Your task to perform on an android device: open chrome and create a bookmark for the current page Image 0: 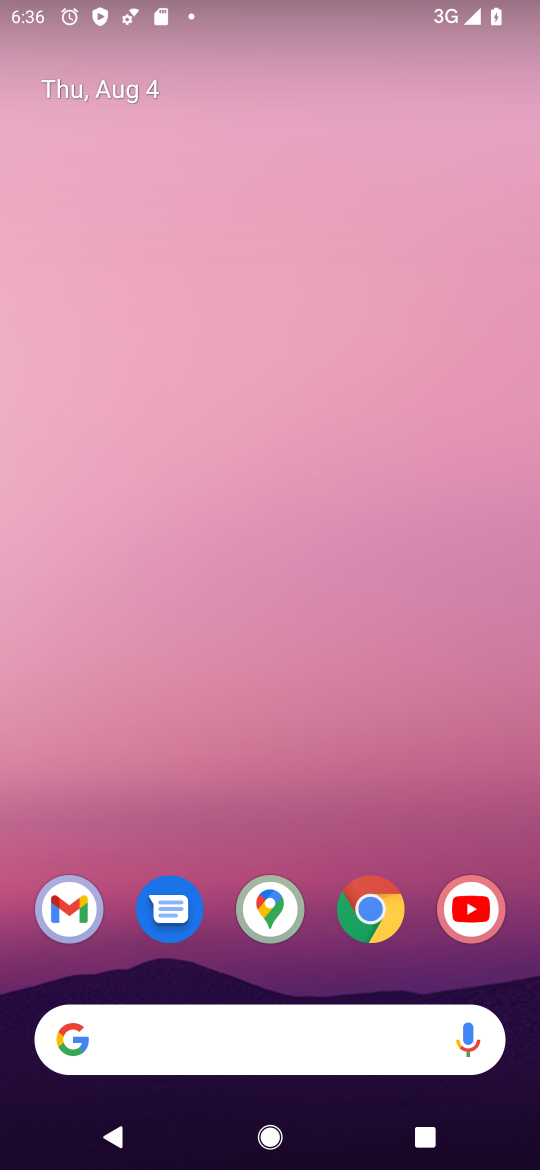
Step 0: drag from (252, 1000) to (231, 106)
Your task to perform on an android device: open chrome and create a bookmark for the current page Image 1: 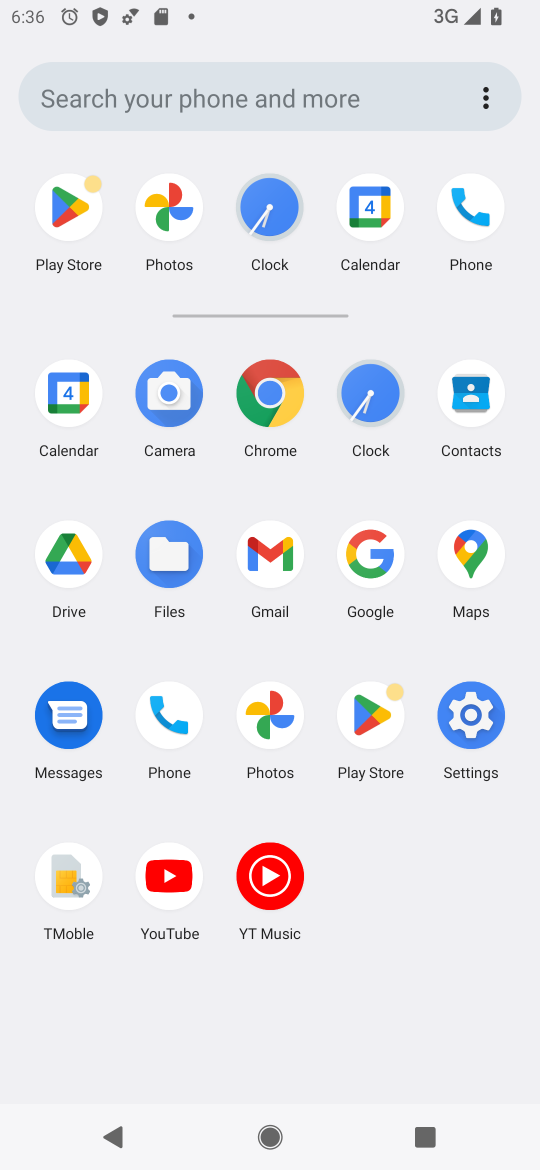
Step 1: click (278, 399)
Your task to perform on an android device: open chrome and create a bookmark for the current page Image 2: 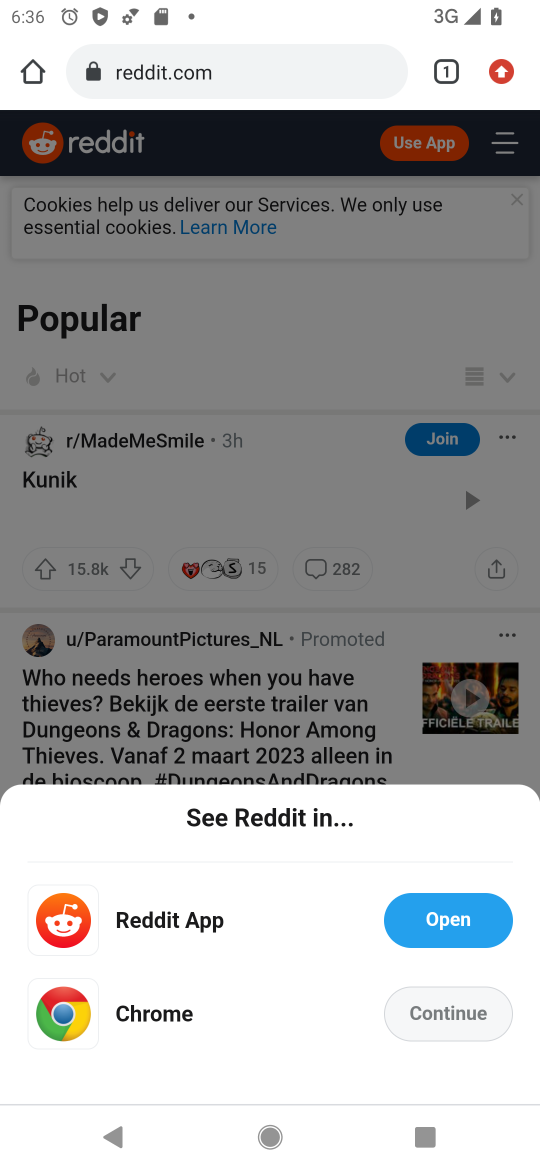
Step 2: task complete